Your task to perform on an android device: Open Google Chrome and click the shortcut for Amazon.com Image 0: 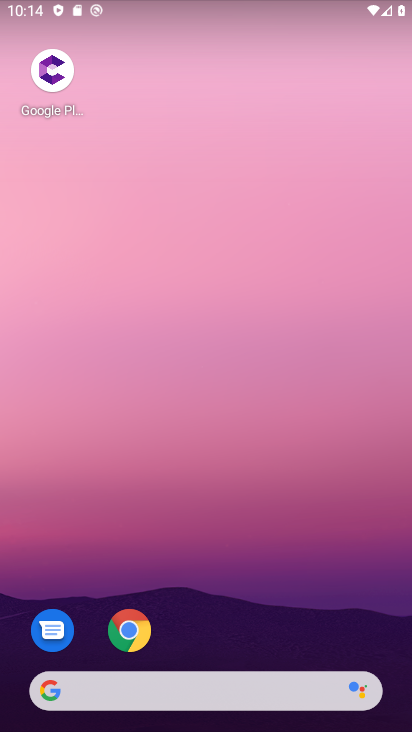
Step 0: click (210, 71)
Your task to perform on an android device: Open Google Chrome and click the shortcut for Amazon.com Image 1: 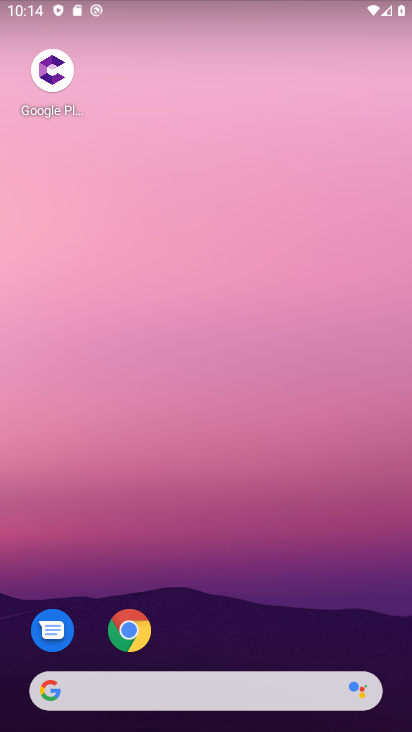
Step 1: drag from (118, 57) to (114, 180)
Your task to perform on an android device: Open Google Chrome and click the shortcut for Amazon.com Image 2: 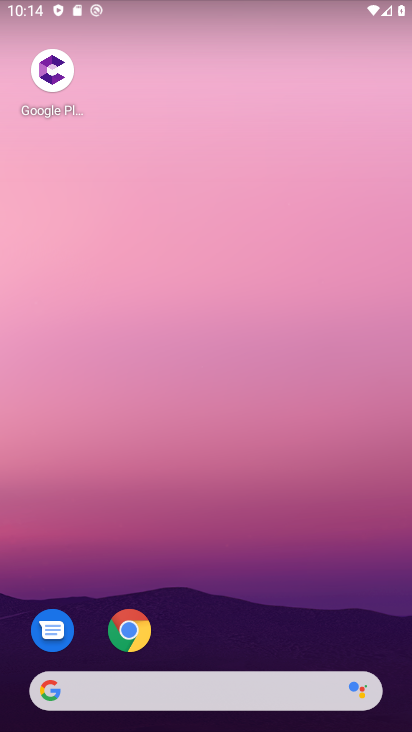
Step 2: drag from (177, 476) to (98, 73)
Your task to perform on an android device: Open Google Chrome and click the shortcut for Amazon.com Image 3: 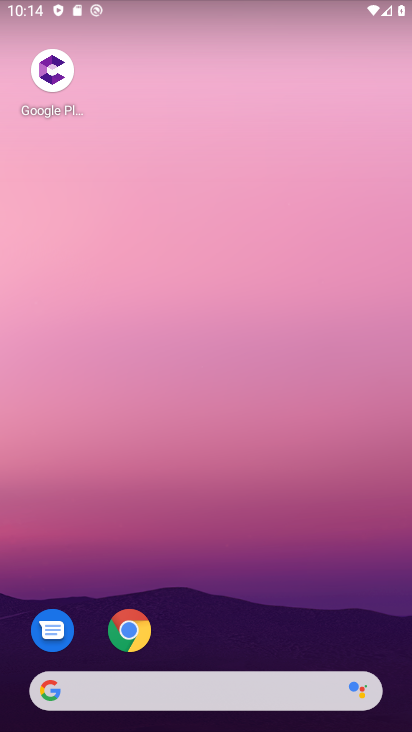
Step 3: drag from (211, 461) to (142, 89)
Your task to perform on an android device: Open Google Chrome and click the shortcut for Amazon.com Image 4: 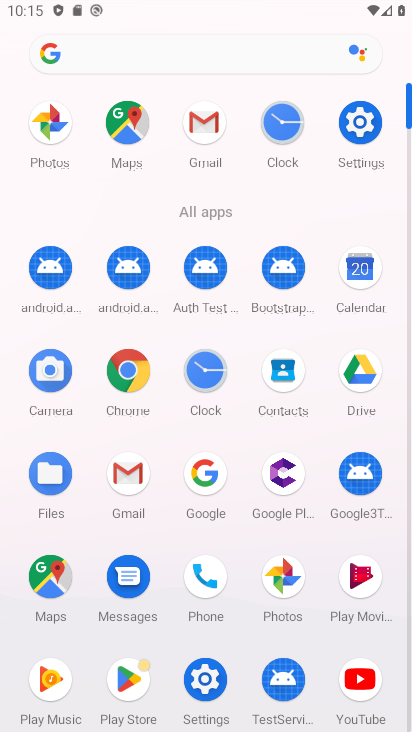
Step 4: click (145, 368)
Your task to perform on an android device: Open Google Chrome and click the shortcut for Amazon.com Image 5: 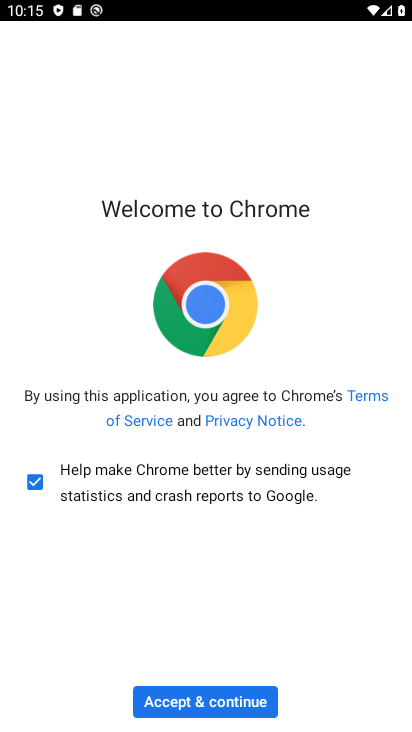
Step 5: click (197, 699)
Your task to perform on an android device: Open Google Chrome and click the shortcut for Amazon.com Image 6: 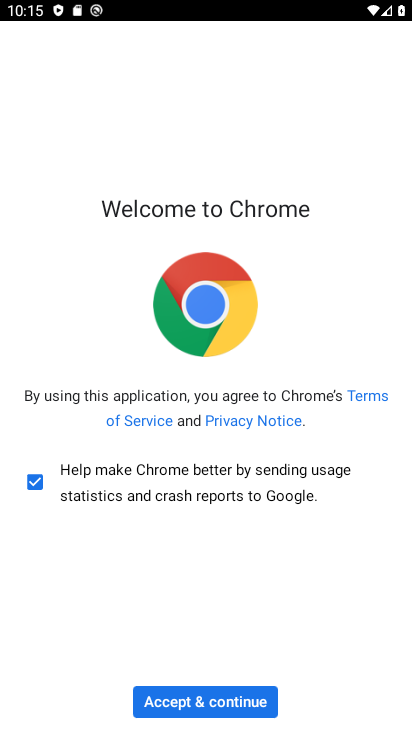
Step 6: click (201, 693)
Your task to perform on an android device: Open Google Chrome and click the shortcut for Amazon.com Image 7: 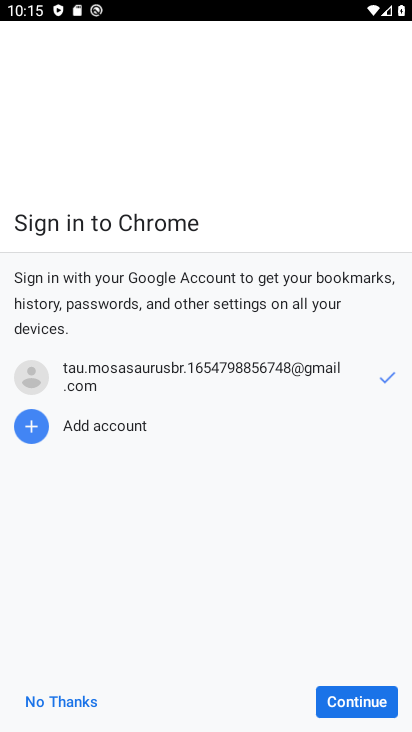
Step 7: click (66, 697)
Your task to perform on an android device: Open Google Chrome and click the shortcut for Amazon.com Image 8: 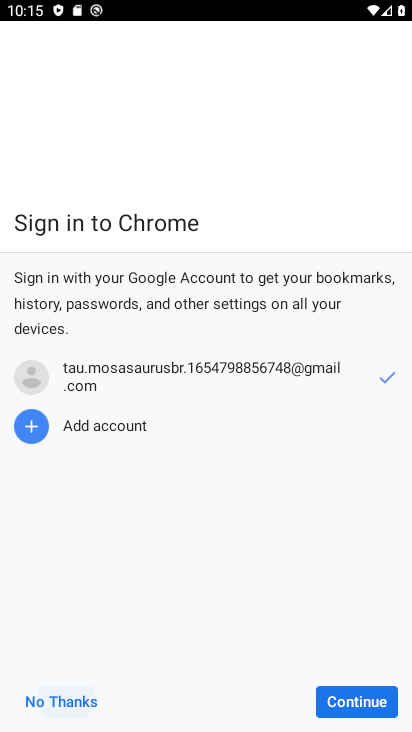
Step 8: click (67, 698)
Your task to perform on an android device: Open Google Chrome and click the shortcut for Amazon.com Image 9: 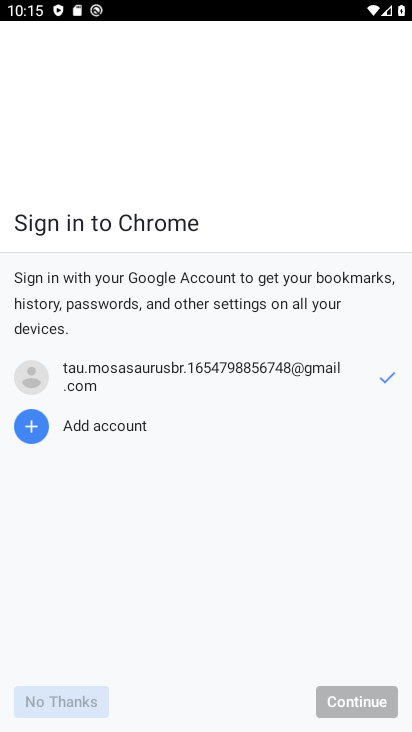
Step 9: click (67, 699)
Your task to perform on an android device: Open Google Chrome and click the shortcut for Amazon.com Image 10: 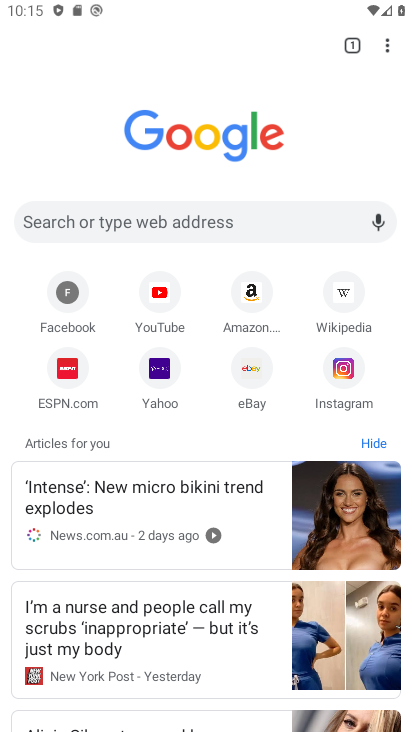
Step 10: click (241, 299)
Your task to perform on an android device: Open Google Chrome and click the shortcut for Amazon.com Image 11: 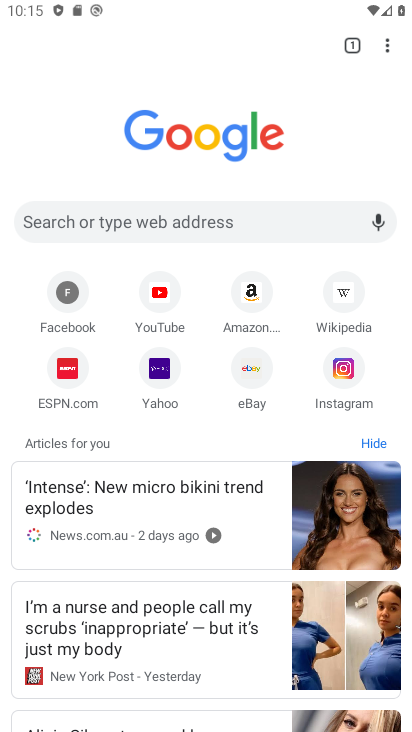
Step 11: task complete